Your task to perform on an android device: turn on bluetooth scan Image 0: 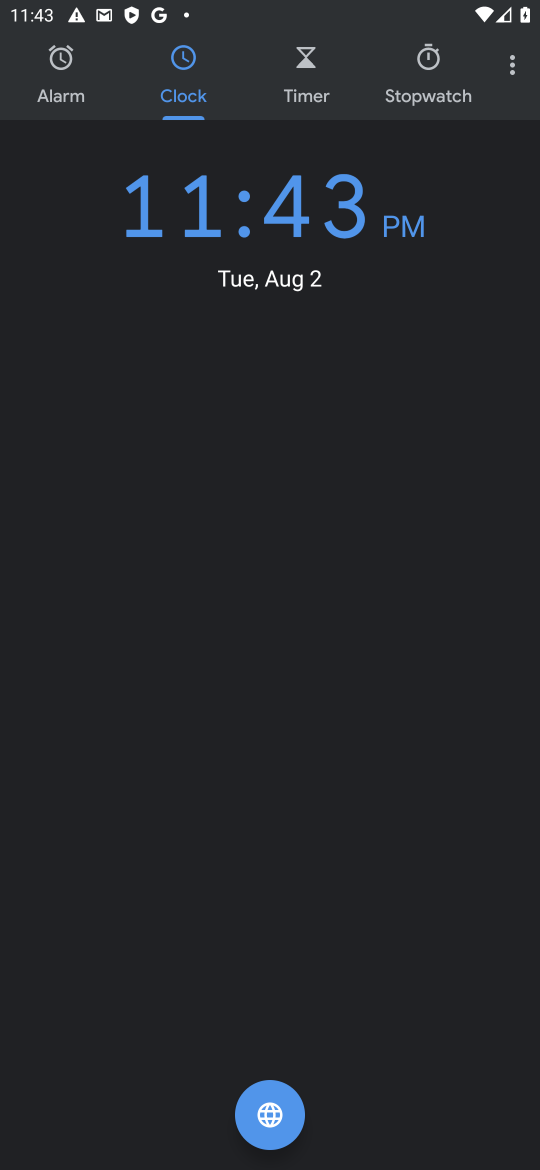
Step 0: press home button
Your task to perform on an android device: turn on bluetooth scan Image 1: 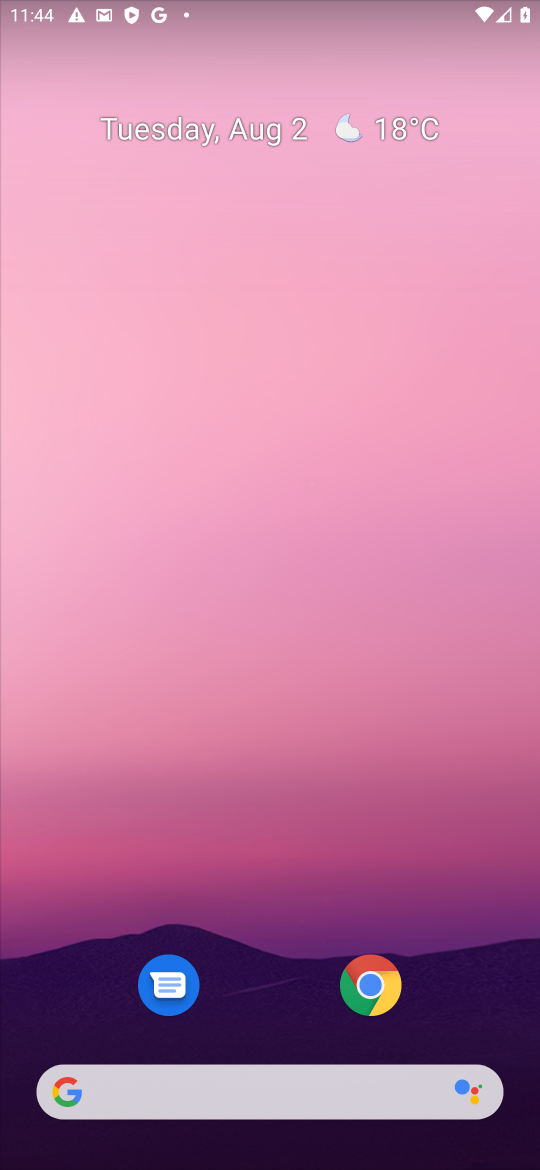
Step 1: drag from (299, 1024) to (205, 305)
Your task to perform on an android device: turn on bluetooth scan Image 2: 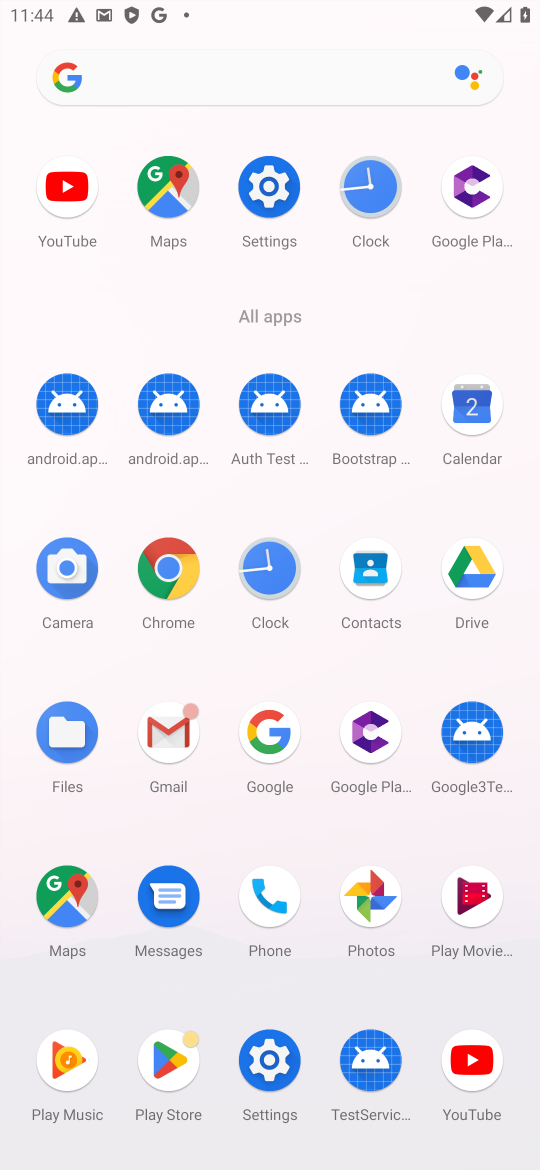
Step 2: click (273, 1053)
Your task to perform on an android device: turn on bluetooth scan Image 3: 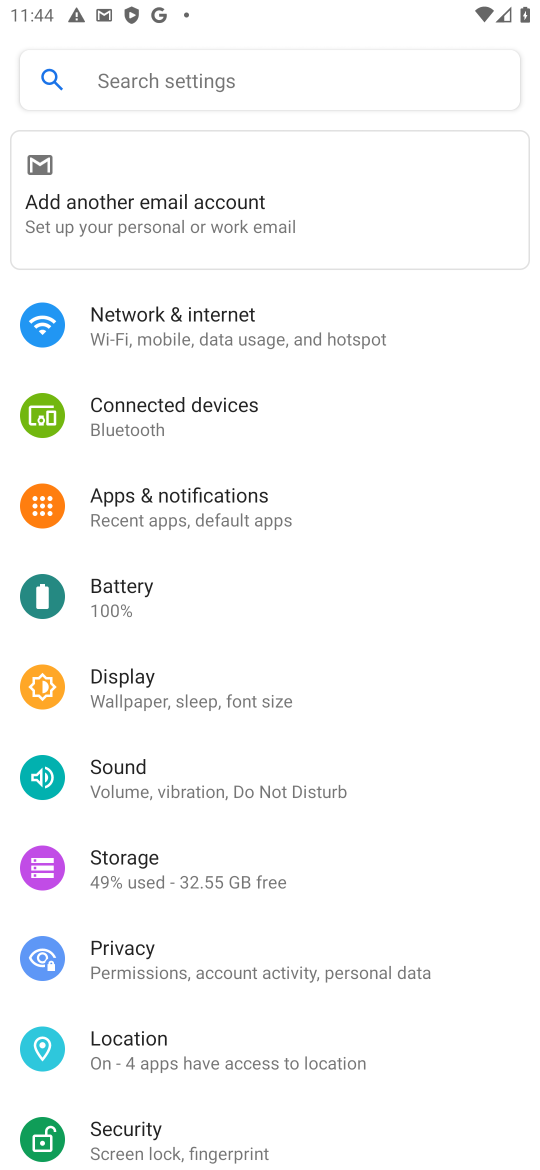
Step 3: click (273, 1053)
Your task to perform on an android device: turn on bluetooth scan Image 4: 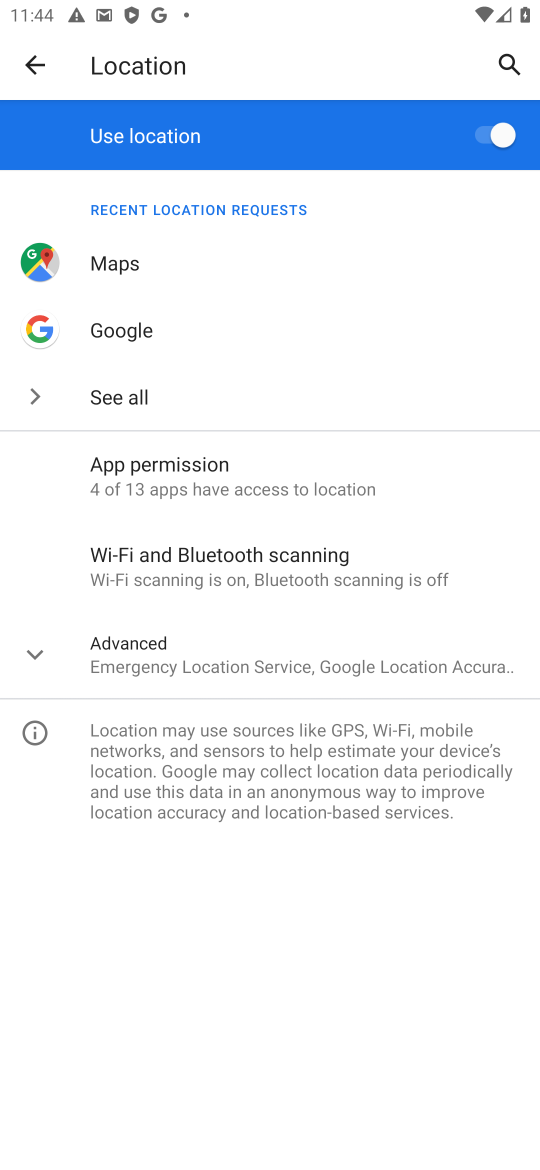
Step 4: click (253, 558)
Your task to perform on an android device: turn on bluetooth scan Image 5: 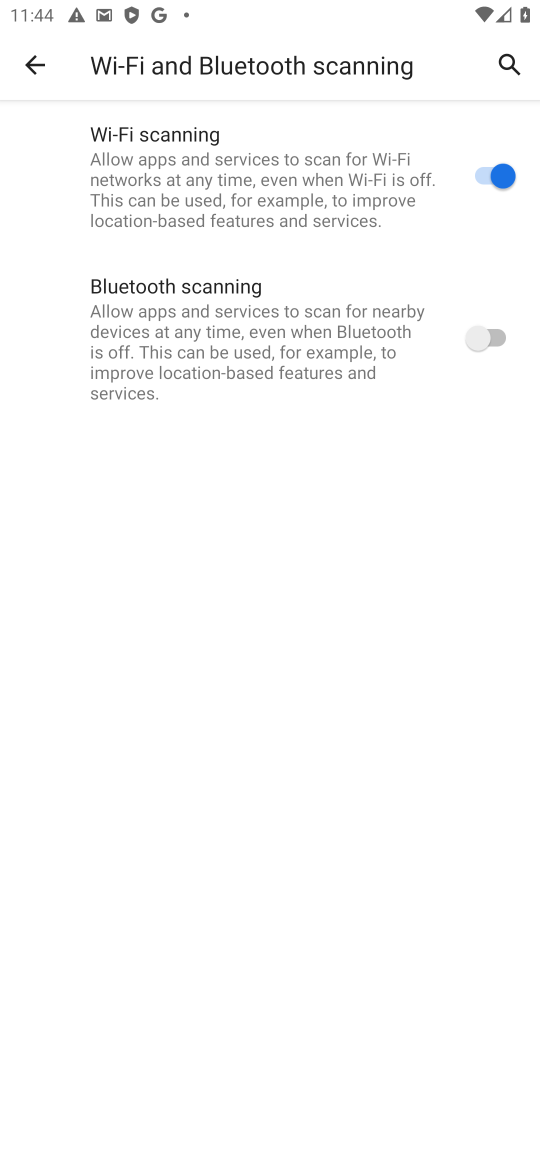
Step 5: click (467, 333)
Your task to perform on an android device: turn on bluetooth scan Image 6: 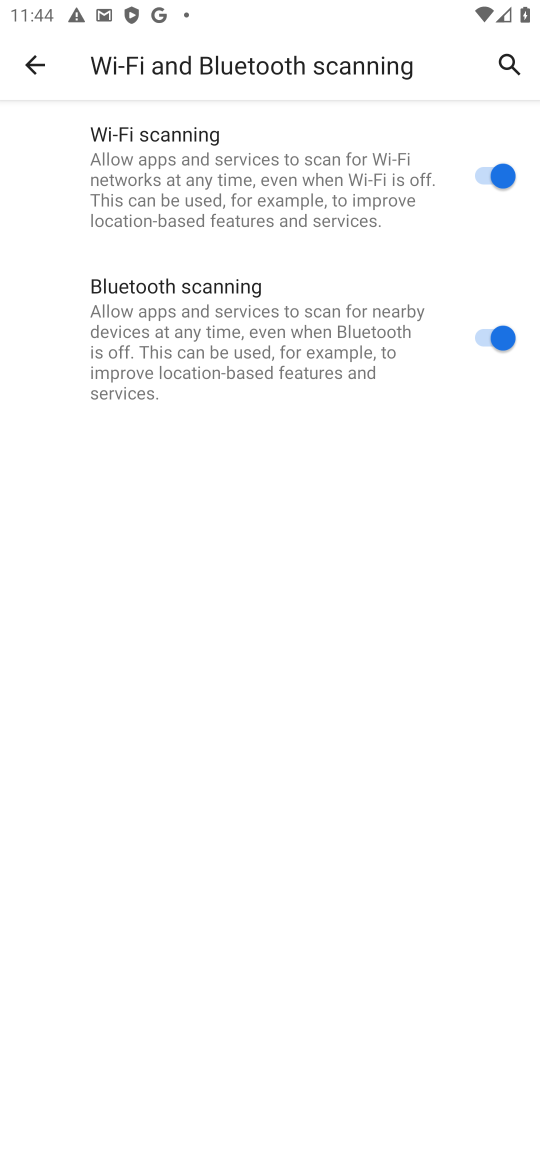
Step 6: task complete